Your task to perform on an android device: visit the assistant section in the google photos Image 0: 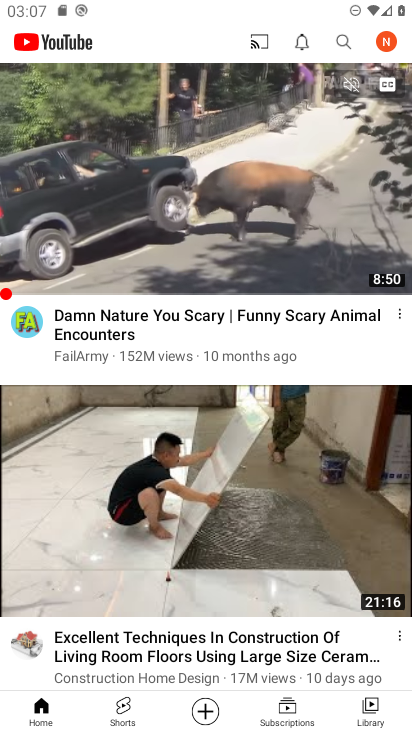
Step 0: press home button
Your task to perform on an android device: visit the assistant section in the google photos Image 1: 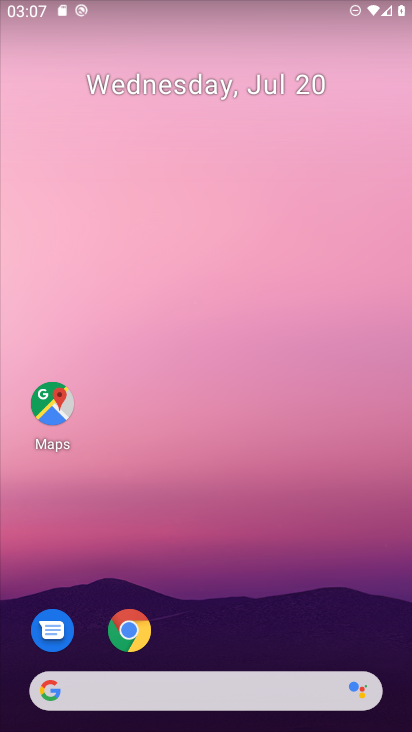
Step 1: drag from (362, 622) to (373, 85)
Your task to perform on an android device: visit the assistant section in the google photos Image 2: 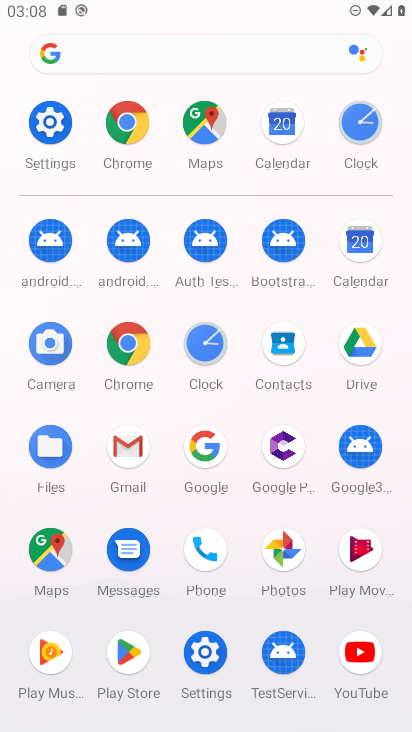
Step 2: click (281, 551)
Your task to perform on an android device: visit the assistant section in the google photos Image 3: 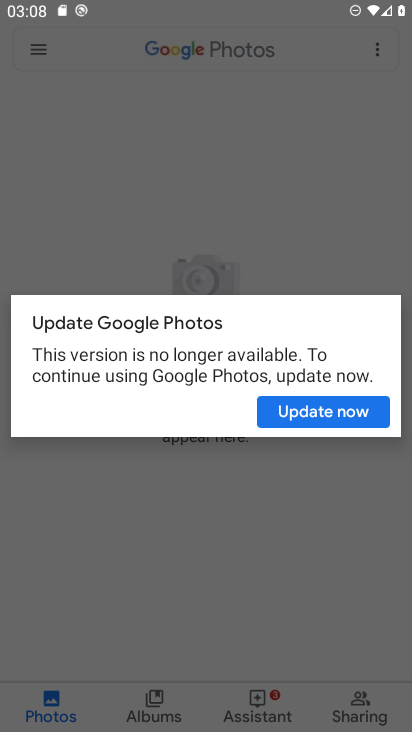
Step 3: click (324, 409)
Your task to perform on an android device: visit the assistant section in the google photos Image 4: 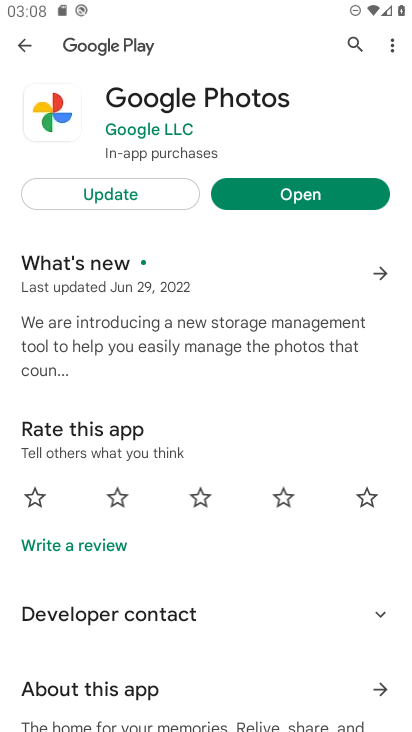
Step 4: click (158, 195)
Your task to perform on an android device: visit the assistant section in the google photos Image 5: 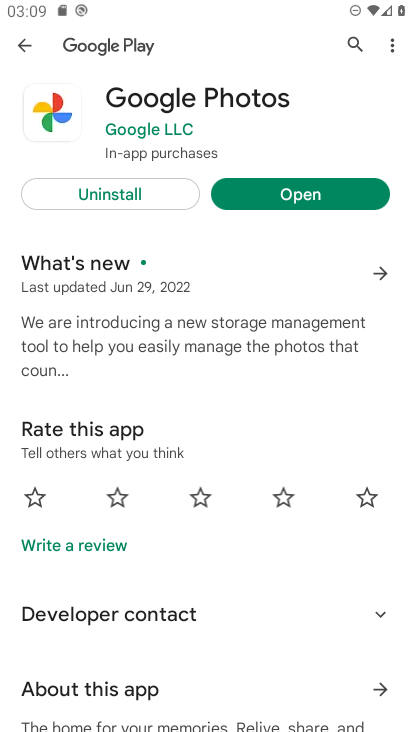
Step 5: click (349, 200)
Your task to perform on an android device: visit the assistant section in the google photos Image 6: 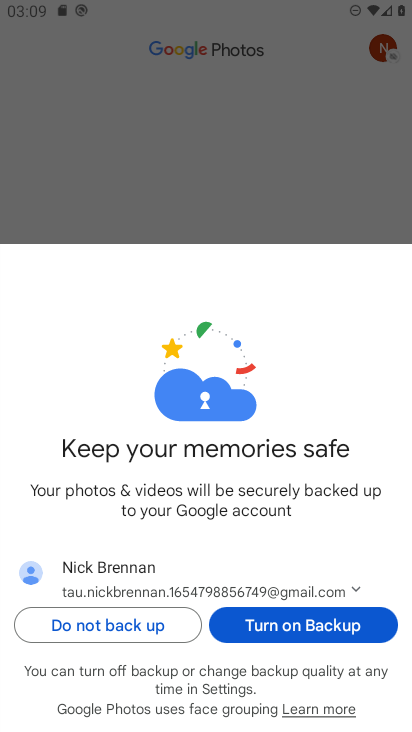
Step 6: click (141, 620)
Your task to perform on an android device: visit the assistant section in the google photos Image 7: 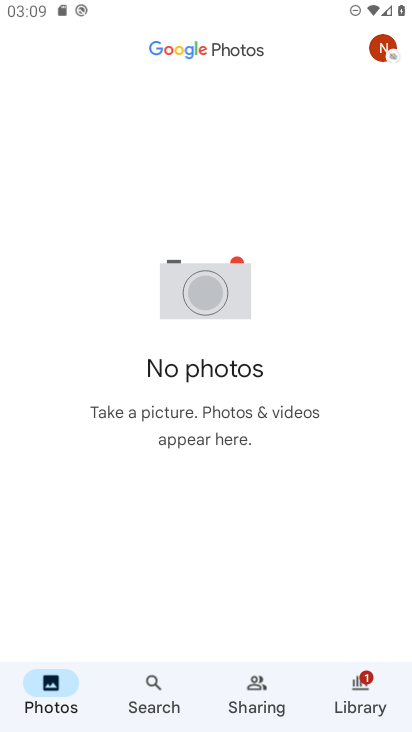
Step 7: click (355, 681)
Your task to perform on an android device: visit the assistant section in the google photos Image 8: 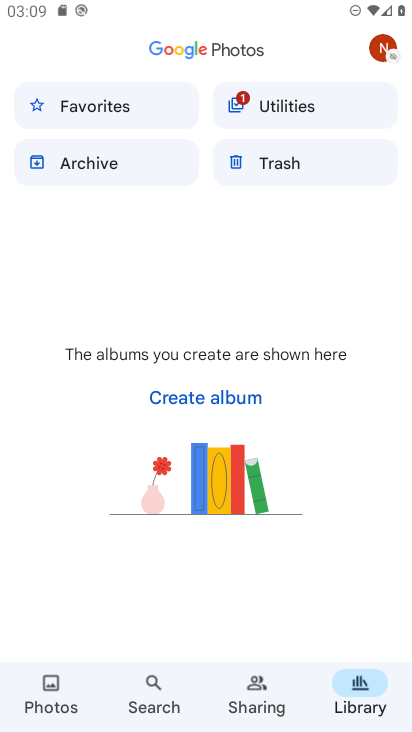
Step 8: task complete